Your task to perform on an android device: turn on improve location accuracy Image 0: 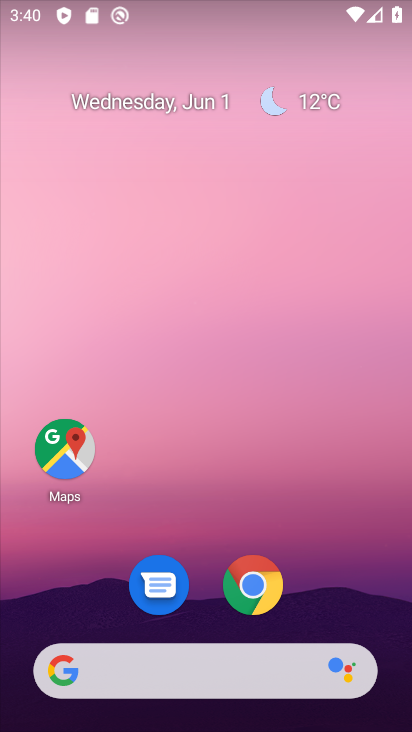
Step 0: drag from (271, 507) to (321, 18)
Your task to perform on an android device: turn on improve location accuracy Image 1: 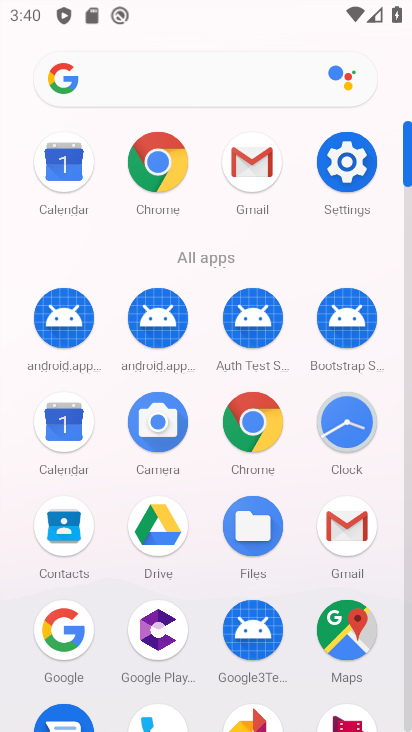
Step 1: click (342, 170)
Your task to perform on an android device: turn on improve location accuracy Image 2: 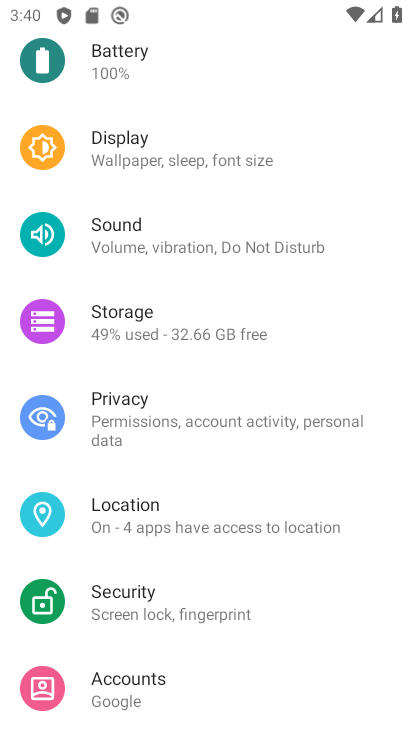
Step 2: click (220, 535)
Your task to perform on an android device: turn on improve location accuracy Image 3: 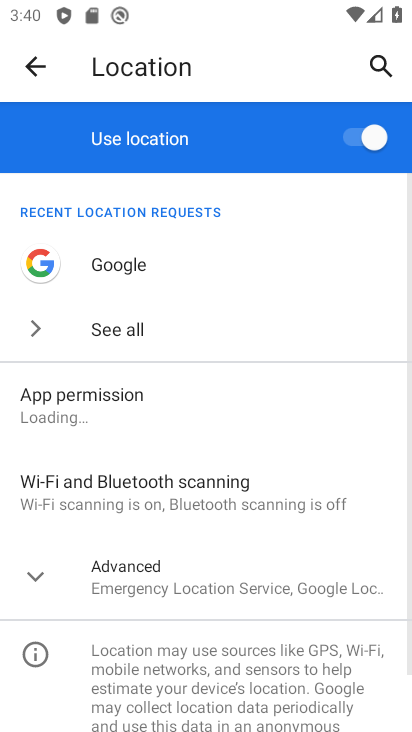
Step 3: drag from (276, 458) to (280, 179)
Your task to perform on an android device: turn on improve location accuracy Image 4: 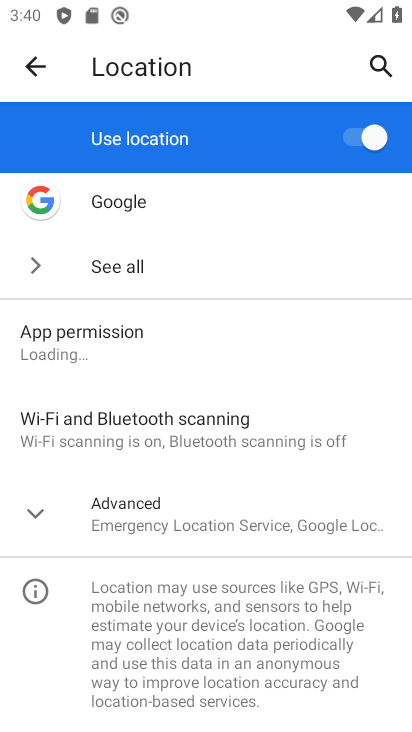
Step 4: click (33, 504)
Your task to perform on an android device: turn on improve location accuracy Image 5: 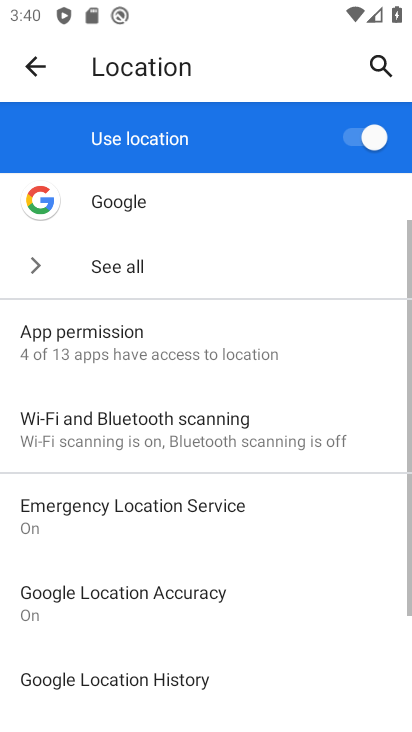
Step 5: click (228, 601)
Your task to perform on an android device: turn on improve location accuracy Image 6: 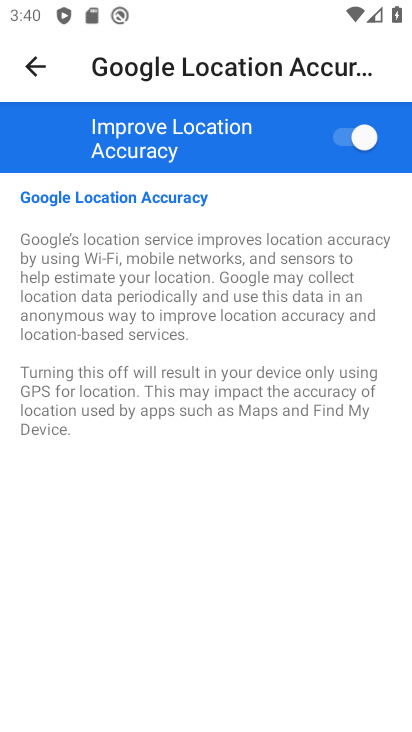
Step 6: task complete